Your task to perform on an android device: open wifi settings Image 0: 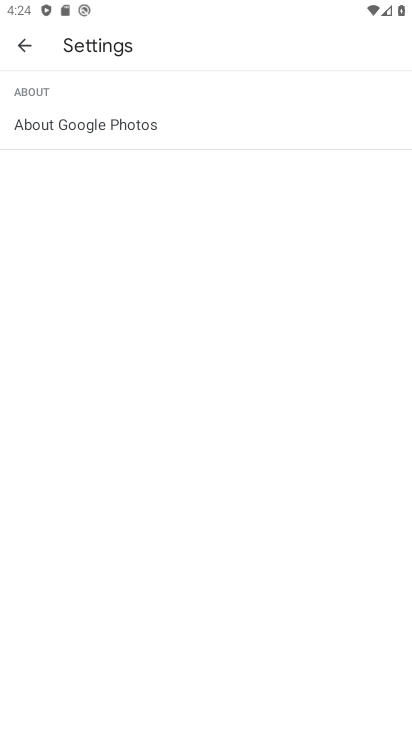
Step 0: press home button
Your task to perform on an android device: open wifi settings Image 1: 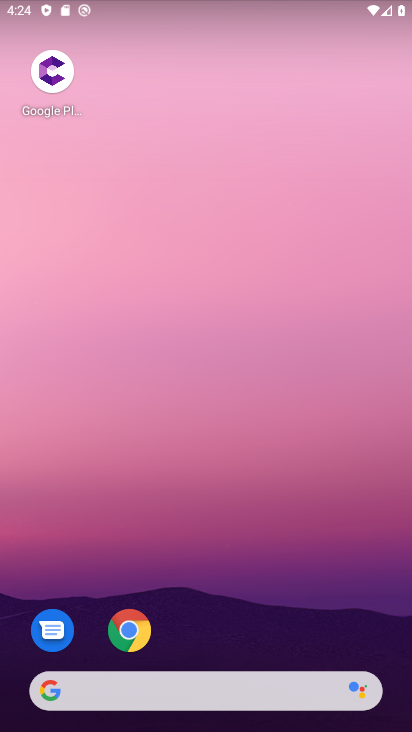
Step 1: drag from (222, 660) to (267, 203)
Your task to perform on an android device: open wifi settings Image 2: 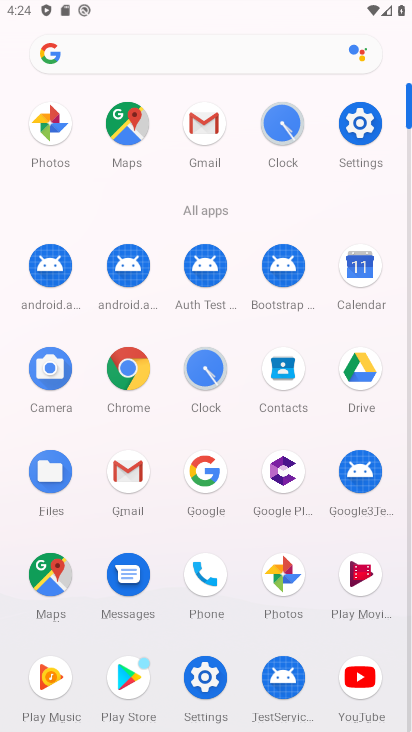
Step 2: click (194, 676)
Your task to perform on an android device: open wifi settings Image 3: 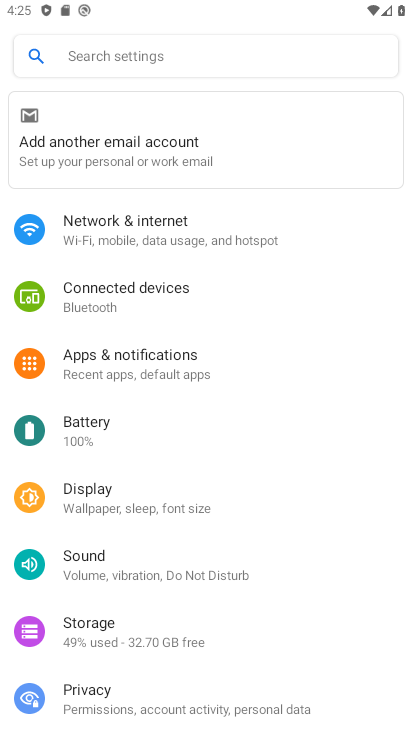
Step 3: click (245, 232)
Your task to perform on an android device: open wifi settings Image 4: 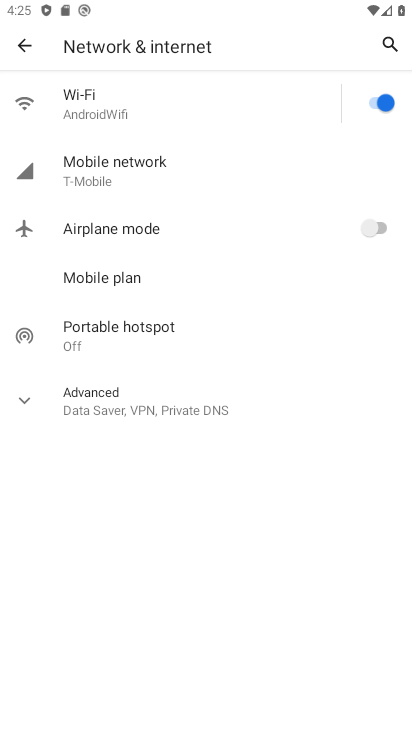
Step 4: click (164, 120)
Your task to perform on an android device: open wifi settings Image 5: 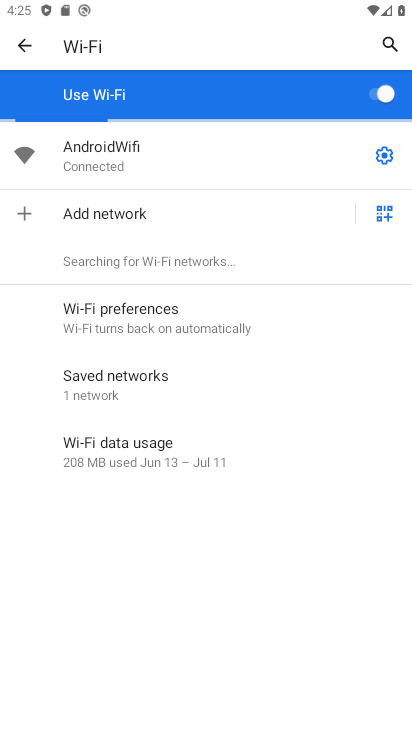
Step 5: task complete